Your task to perform on an android device: Is it going to rain today? Image 0: 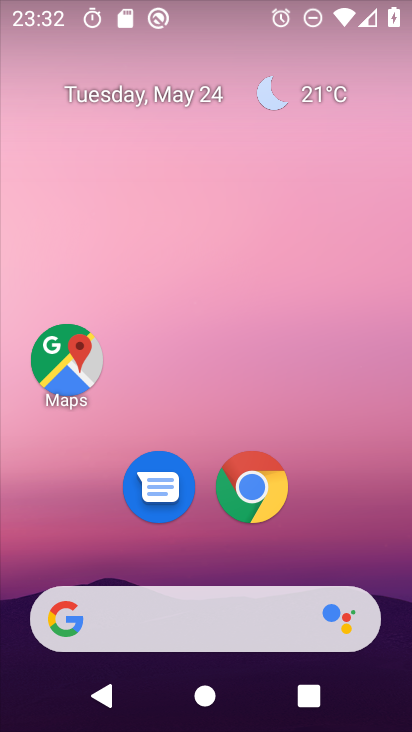
Step 0: click (324, 99)
Your task to perform on an android device: Is it going to rain today? Image 1: 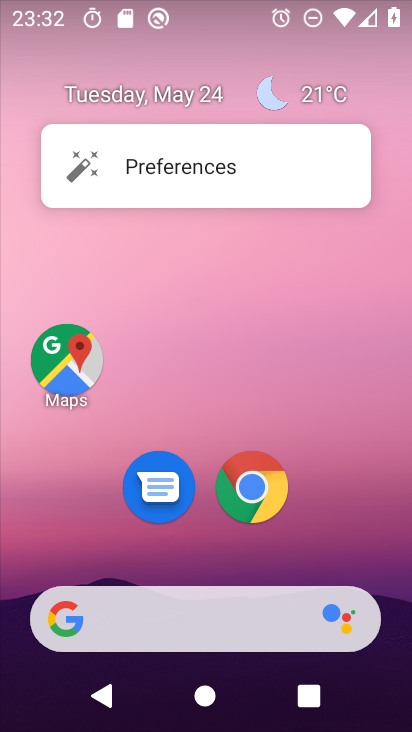
Step 1: click (324, 99)
Your task to perform on an android device: Is it going to rain today? Image 2: 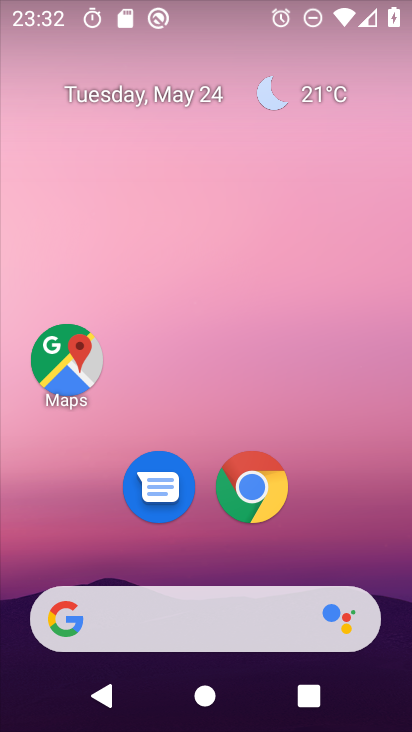
Step 2: click (326, 98)
Your task to perform on an android device: Is it going to rain today? Image 3: 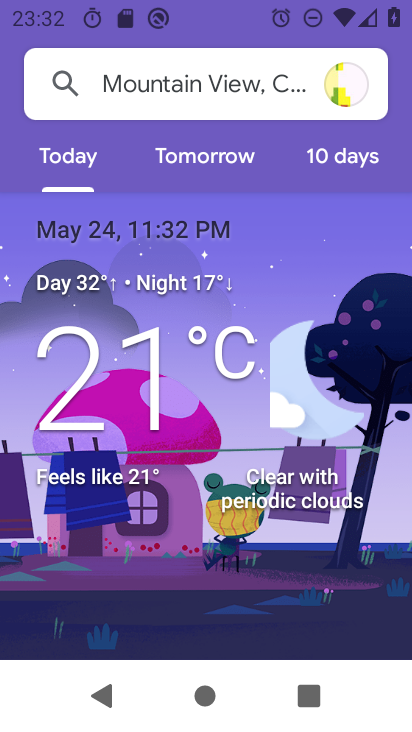
Step 3: task complete